Your task to perform on an android device: open app "Google Translate" (install if not already installed) Image 0: 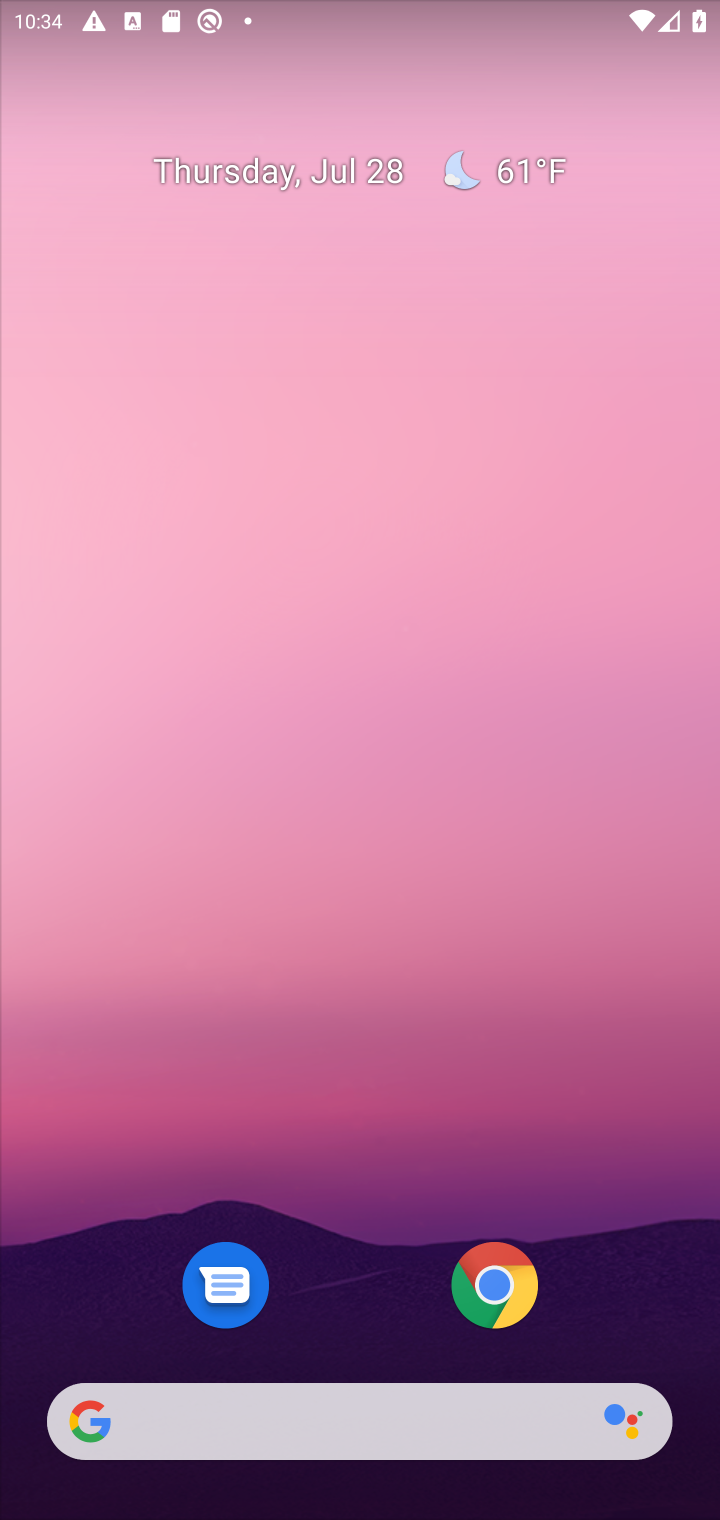
Step 0: drag from (381, 1393) to (558, 180)
Your task to perform on an android device: open app "Google Translate" (install if not already installed) Image 1: 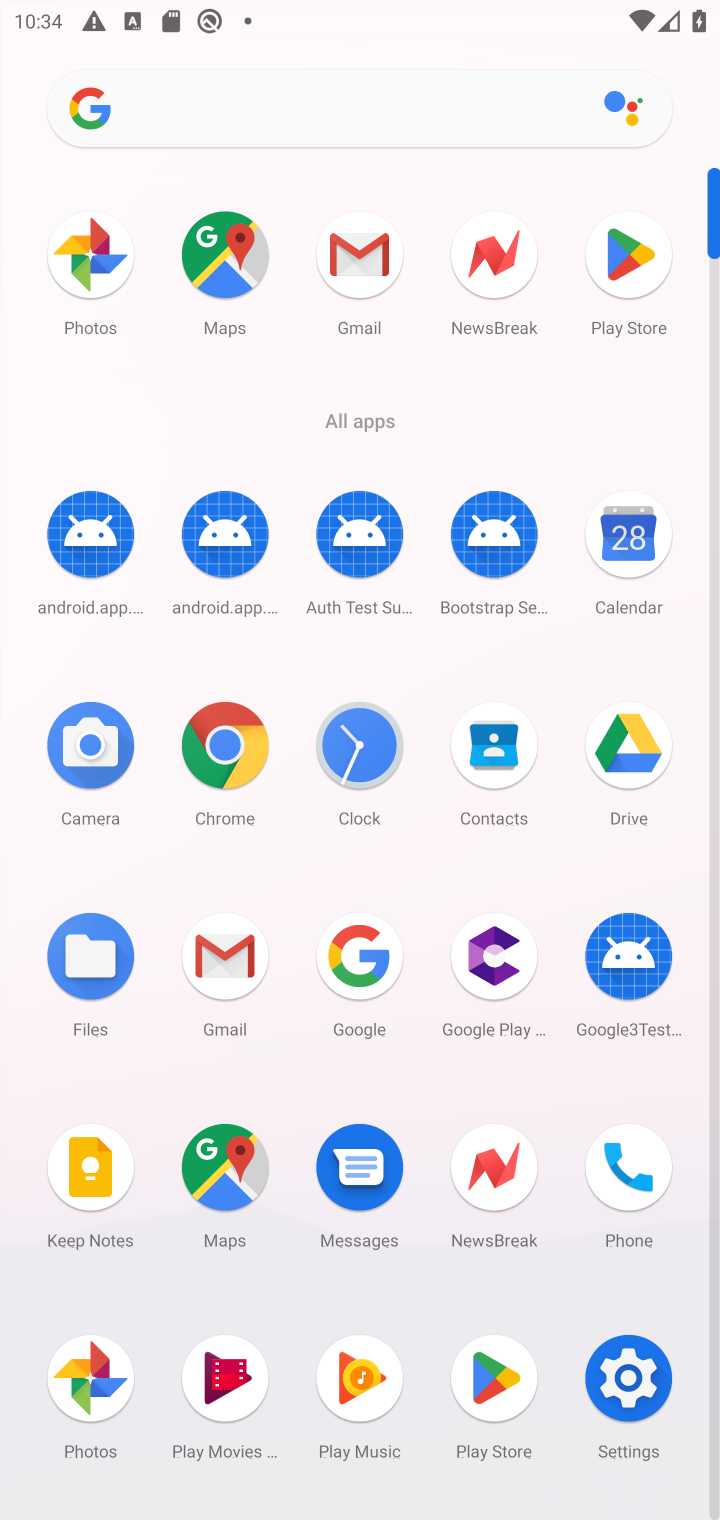
Step 1: click (635, 266)
Your task to perform on an android device: open app "Google Translate" (install if not already installed) Image 2: 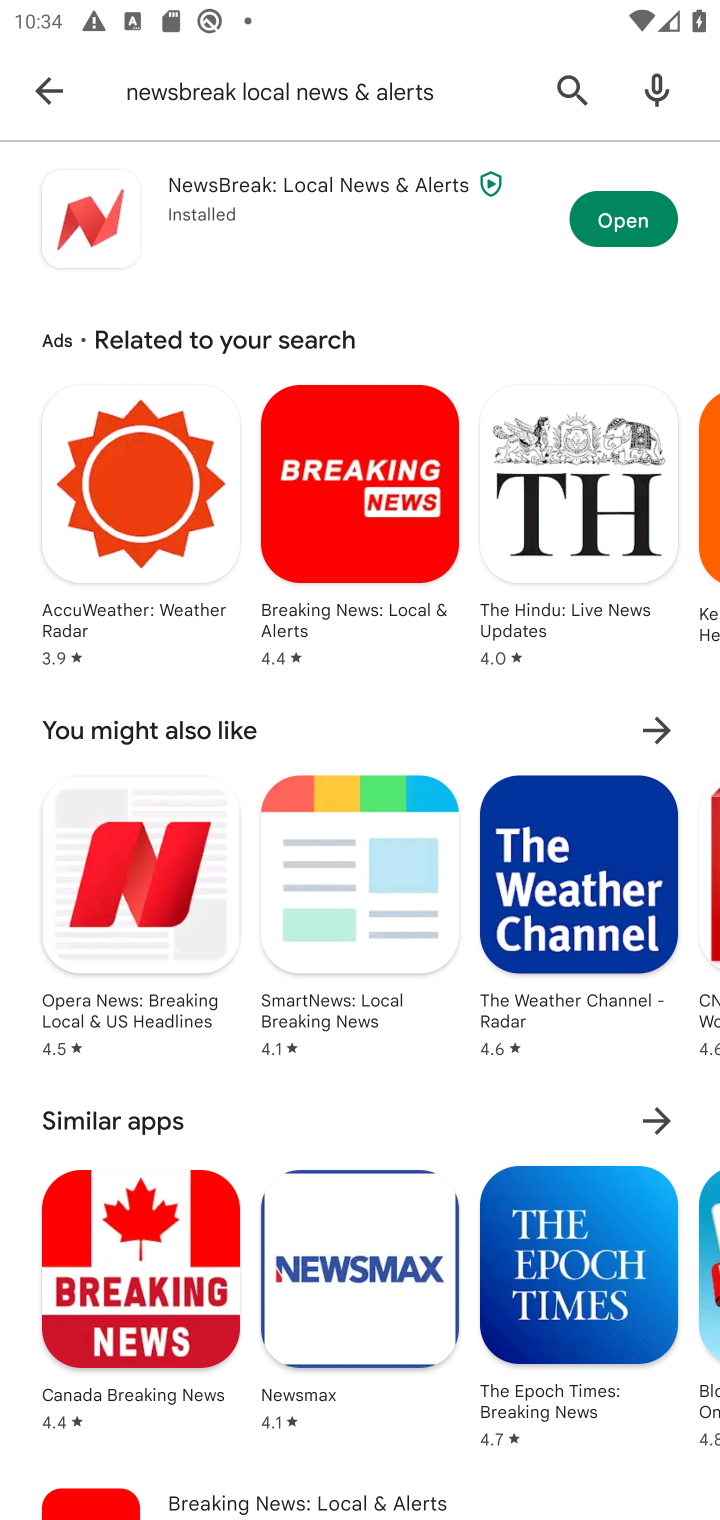
Step 2: click (570, 92)
Your task to perform on an android device: open app "Google Translate" (install if not already installed) Image 3: 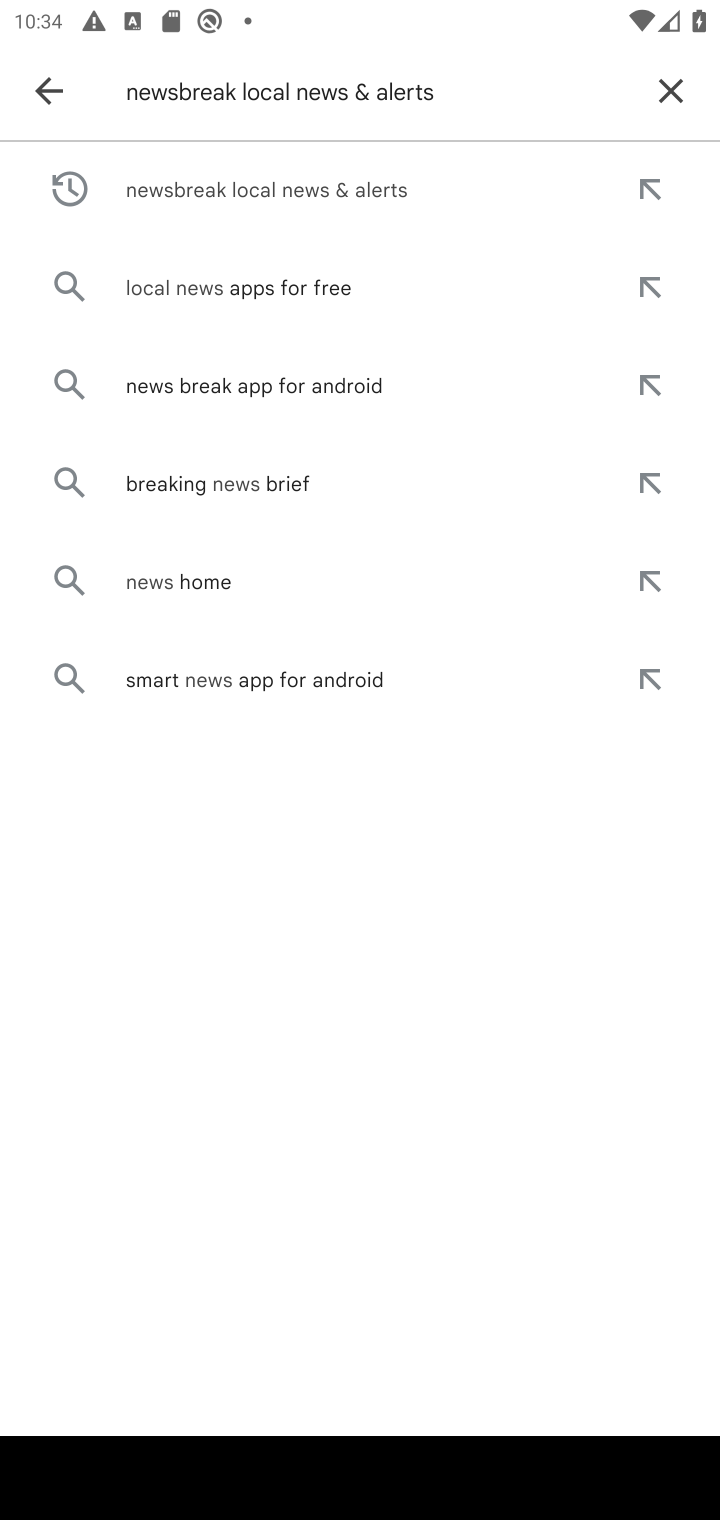
Step 3: click (667, 87)
Your task to perform on an android device: open app "Google Translate" (install if not already installed) Image 4: 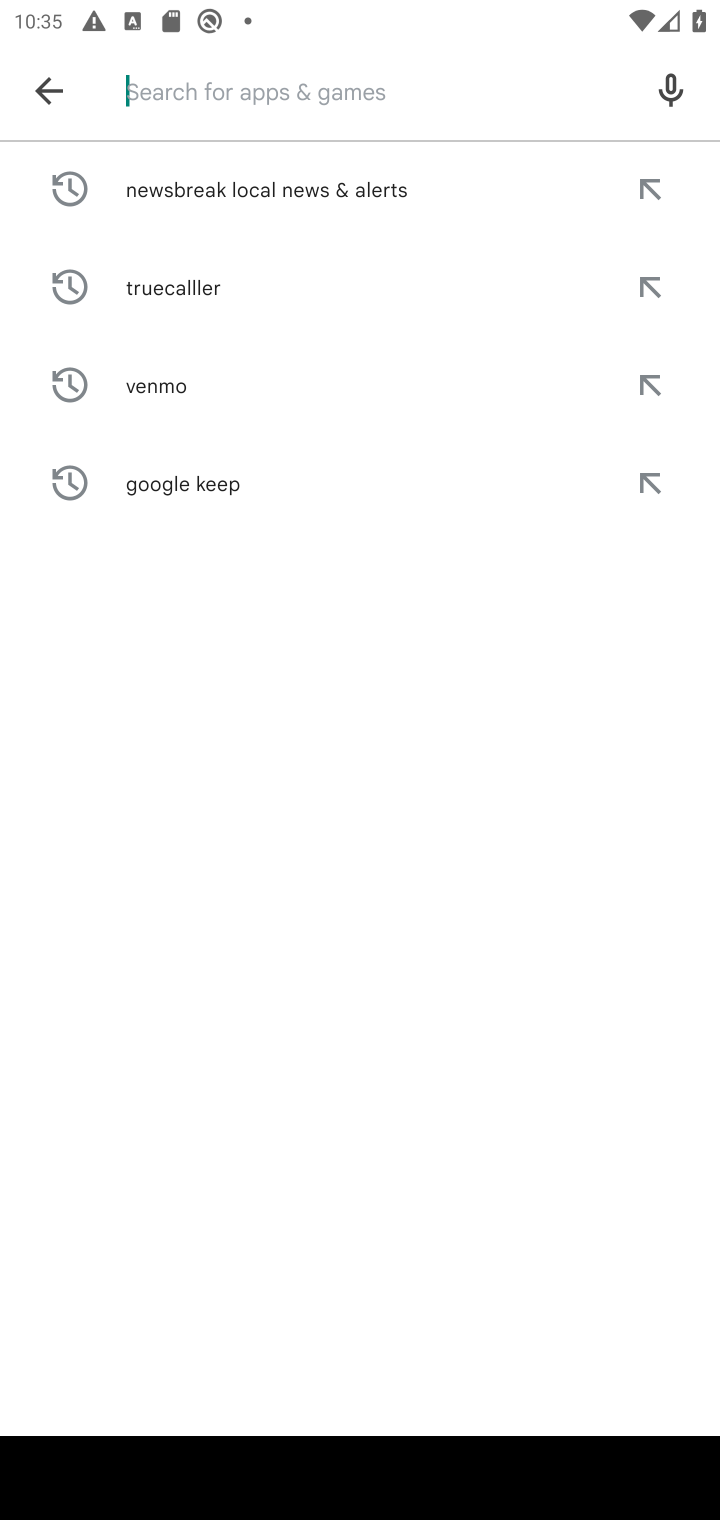
Step 4: click (146, 80)
Your task to perform on an android device: open app "Google Translate" (install if not already installed) Image 5: 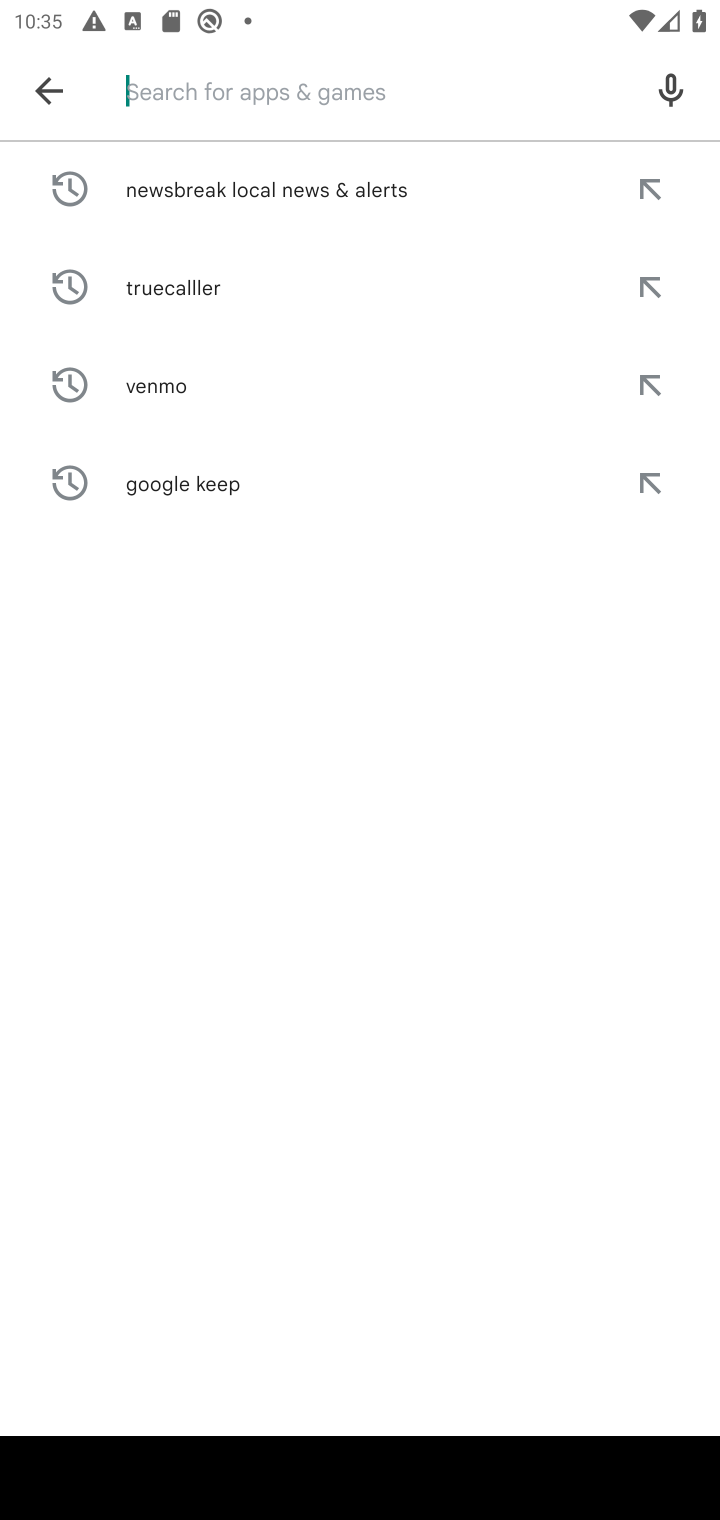
Step 5: type "Google Translate"
Your task to perform on an android device: open app "Google Translate" (install if not already installed) Image 6: 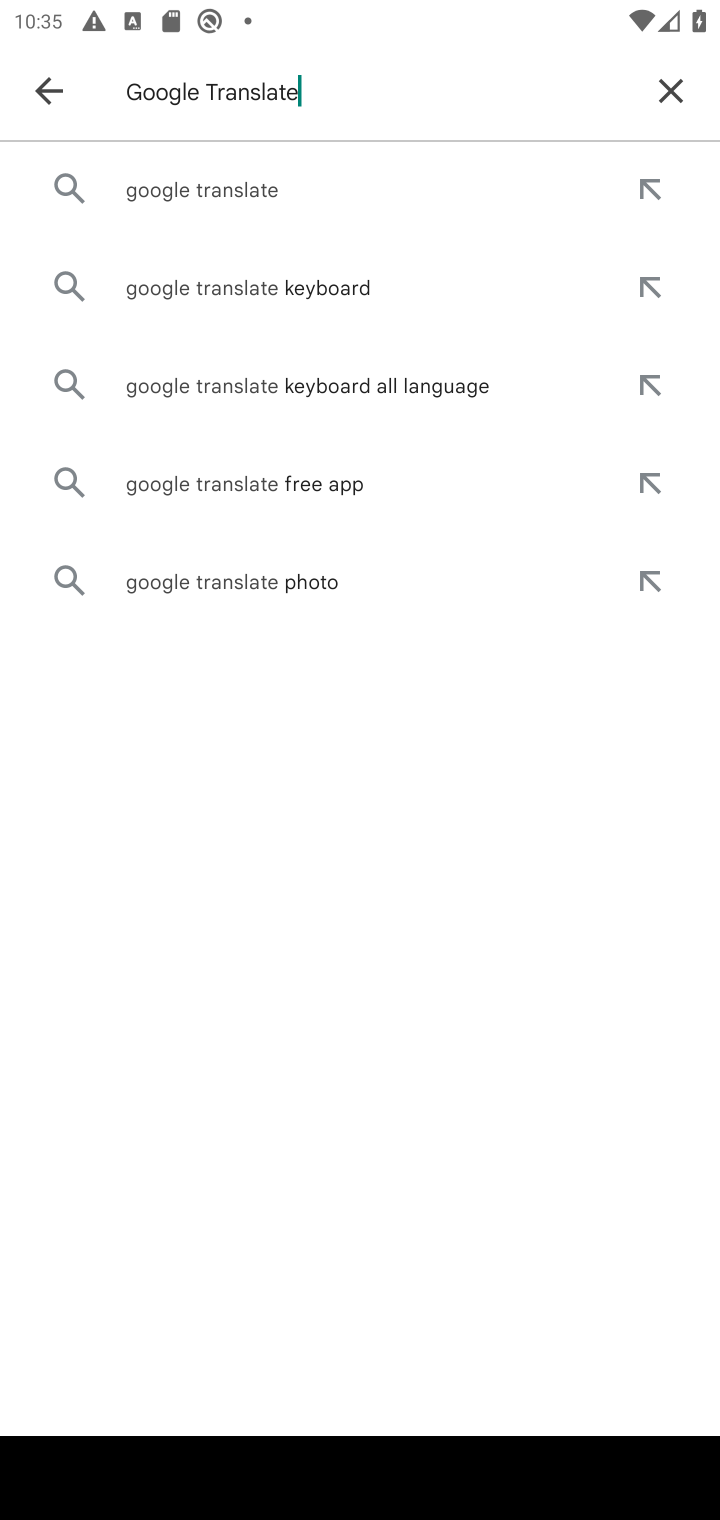
Step 6: click (201, 195)
Your task to perform on an android device: open app "Google Translate" (install if not already installed) Image 7: 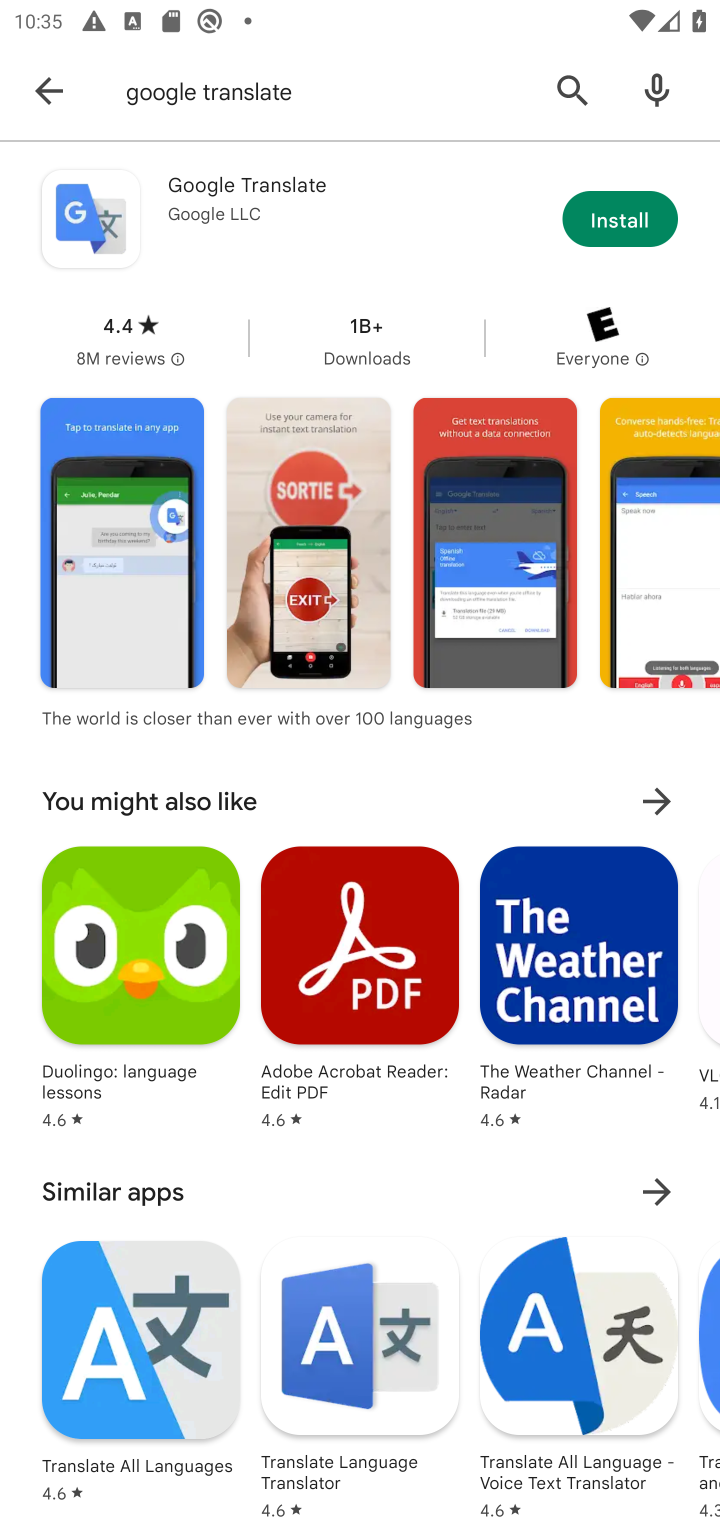
Step 7: click (600, 229)
Your task to perform on an android device: open app "Google Translate" (install if not already installed) Image 8: 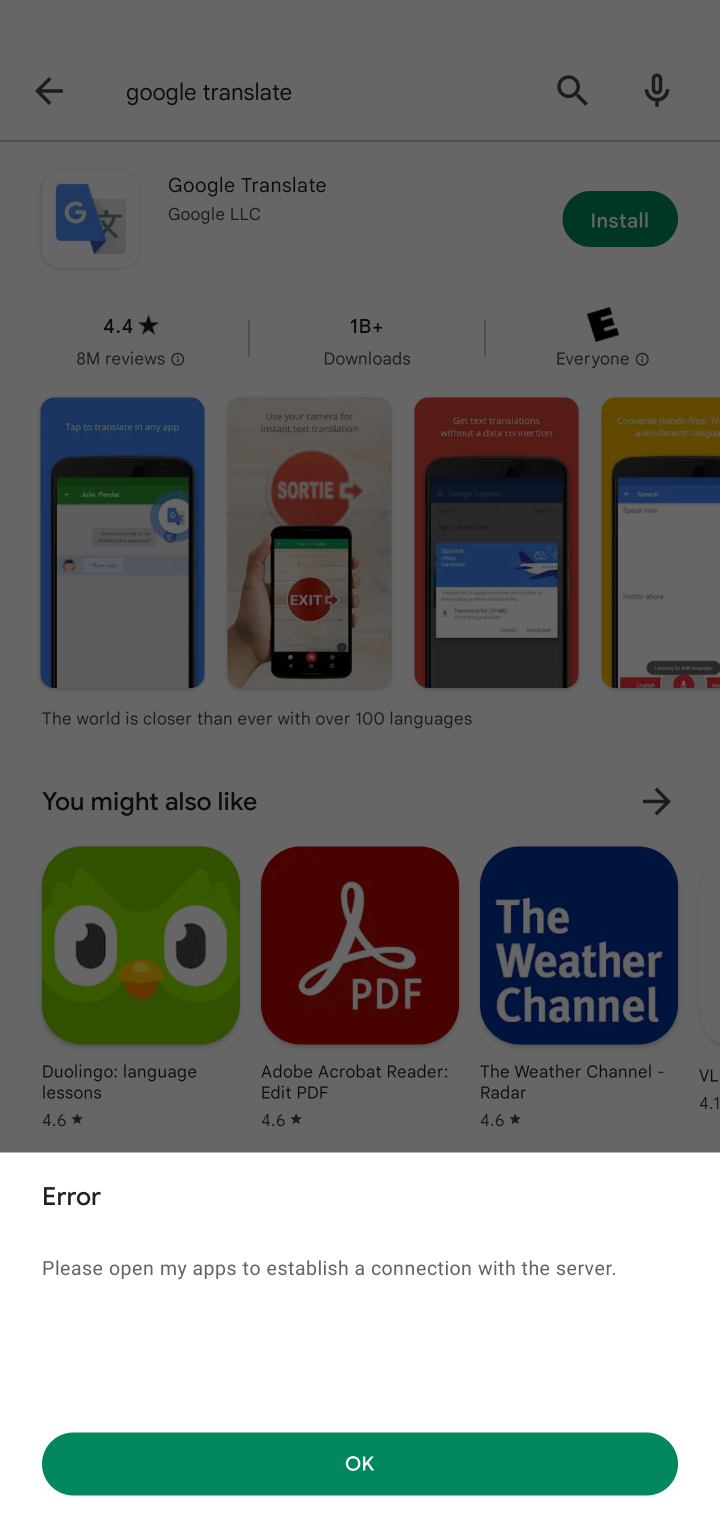
Step 8: click (319, 1455)
Your task to perform on an android device: open app "Google Translate" (install if not already installed) Image 9: 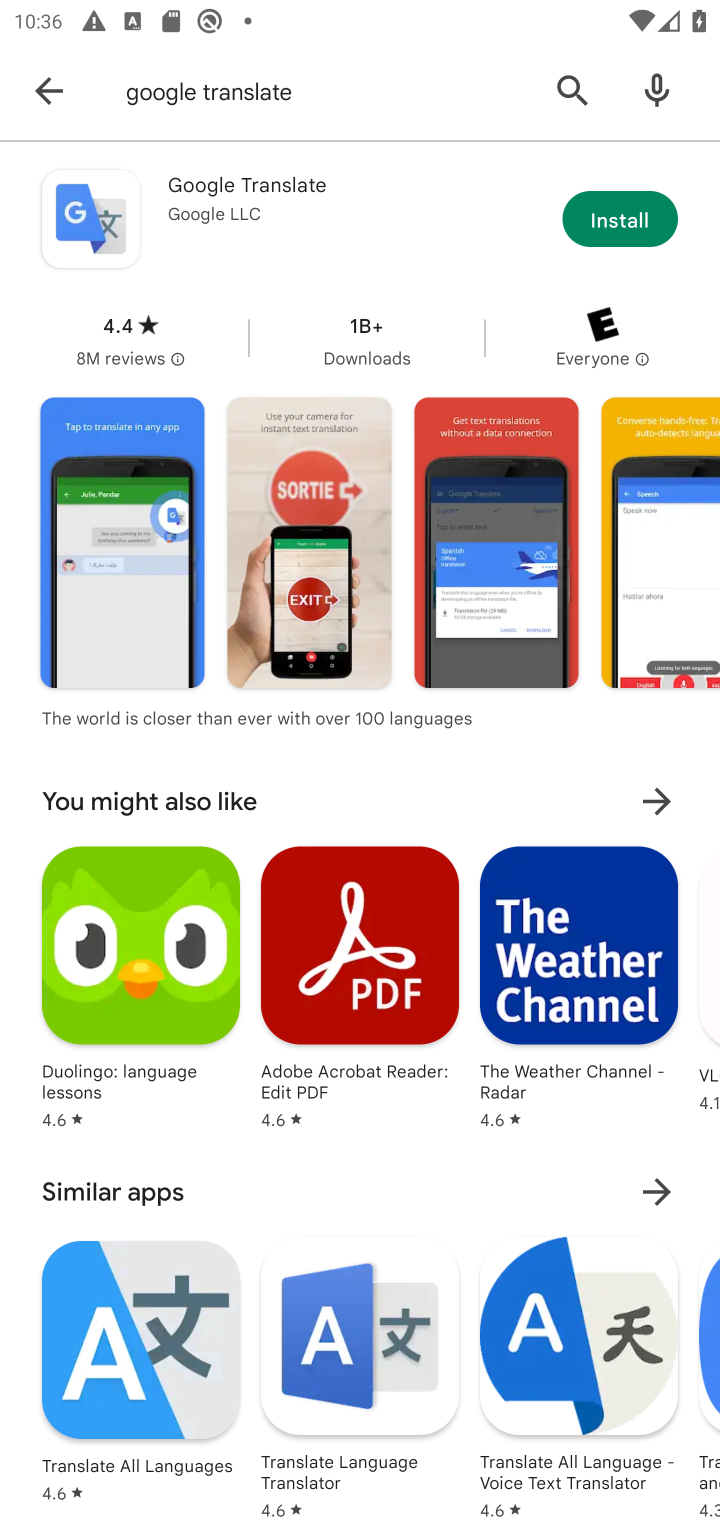
Step 9: click (613, 210)
Your task to perform on an android device: open app "Google Translate" (install if not already installed) Image 10: 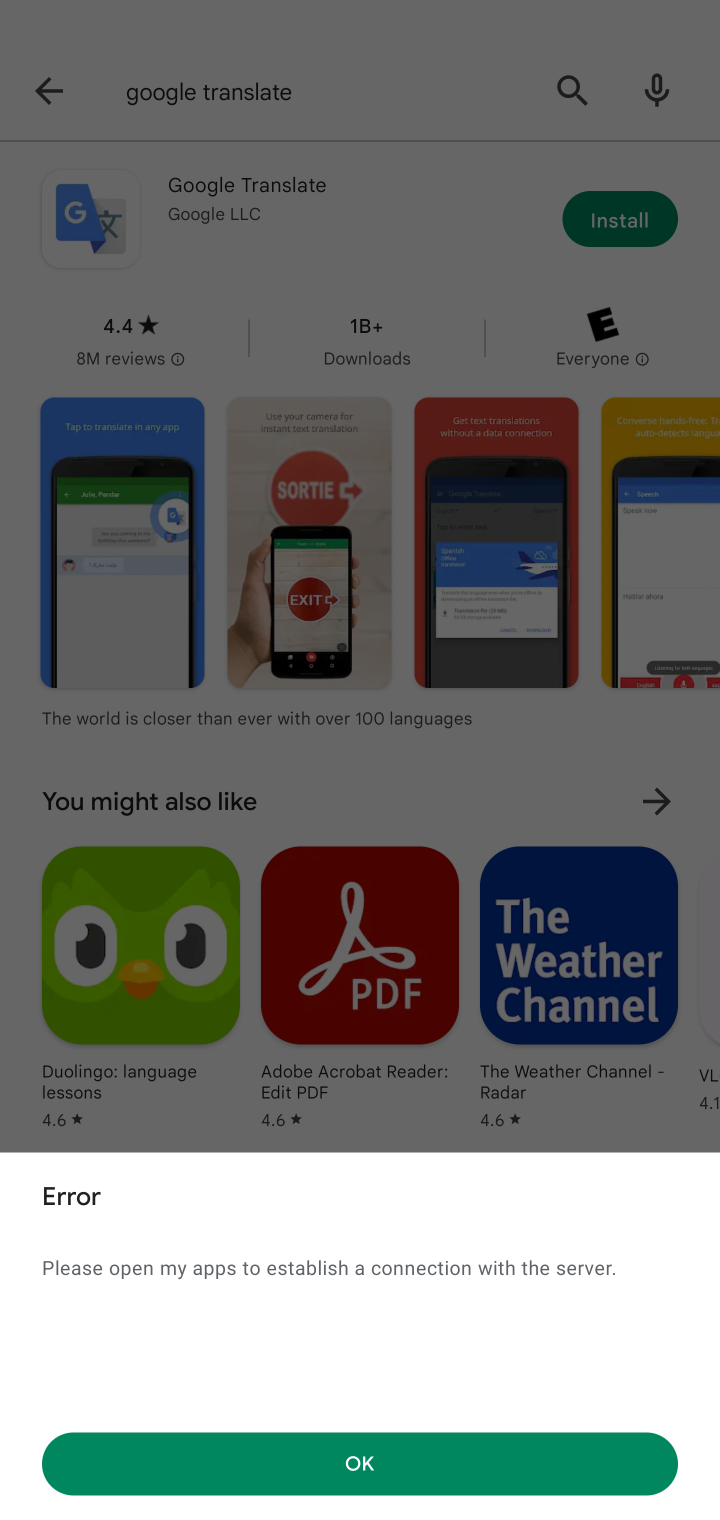
Step 10: click (99, 1204)
Your task to perform on an android device: open app "Google Translate" (install if not already installed) Image 11: 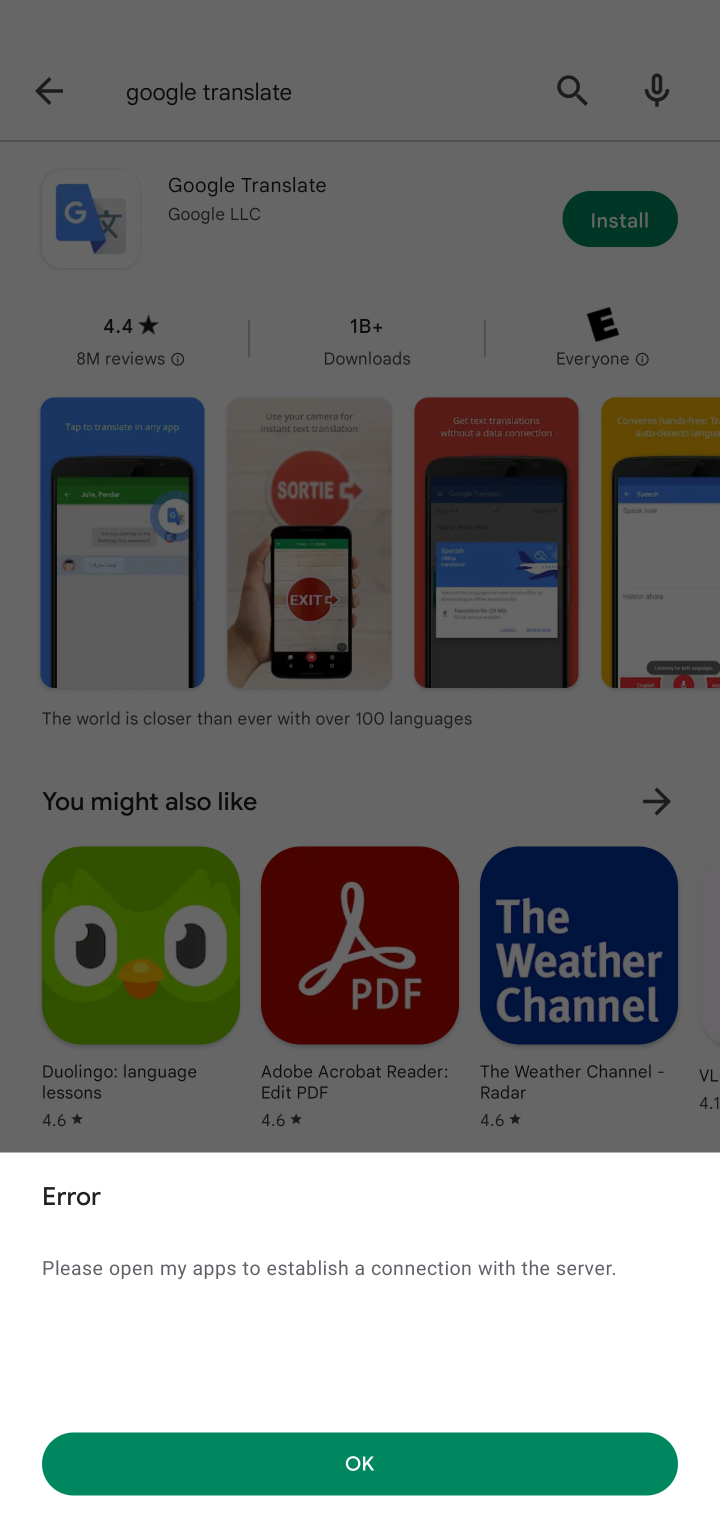
Step 11: click (377, 1476)
Your task to perform on an android device: open app "Google Translate" (install if not already installed) Image 12: 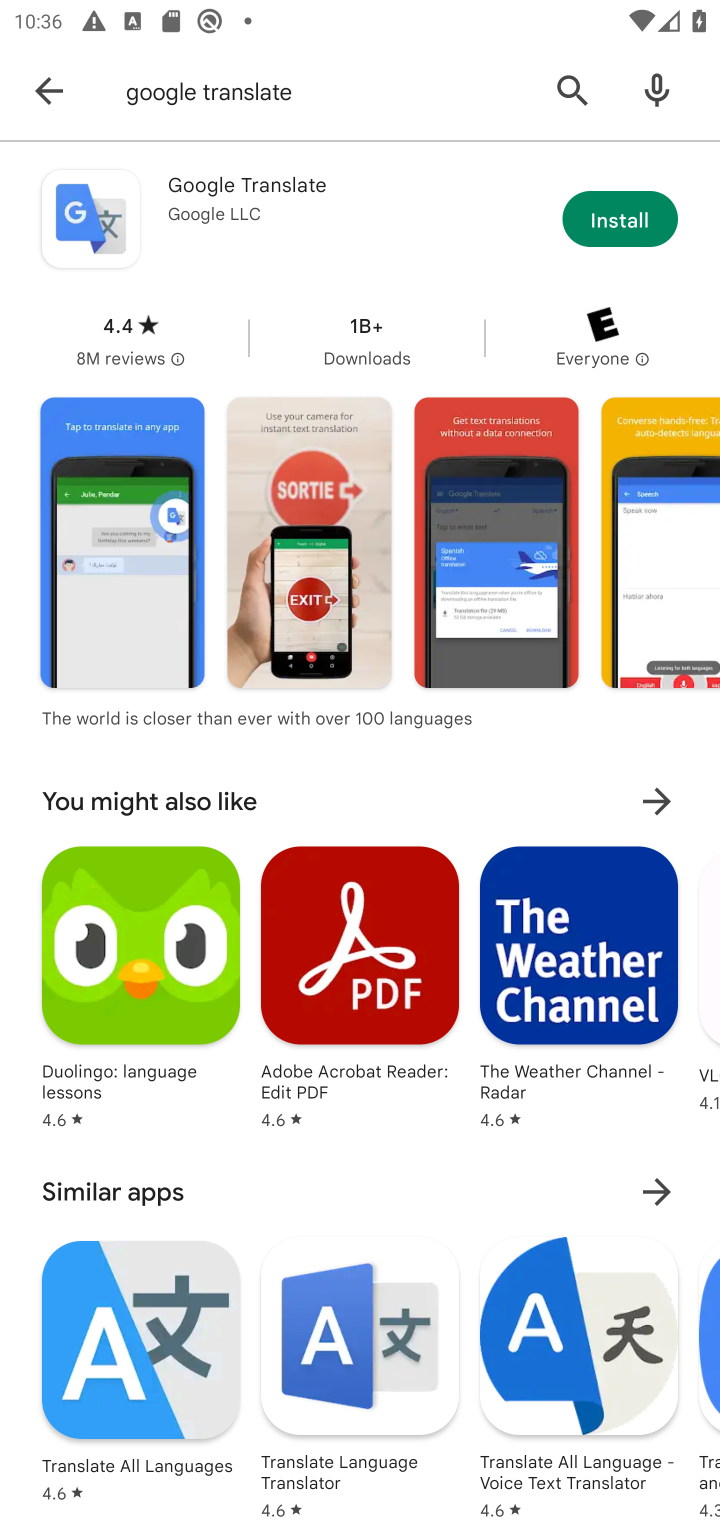
Step 12: click (597, 218)
Your task to perform on an android device: open app "Google Translate" (install if not already installed) Image 13: 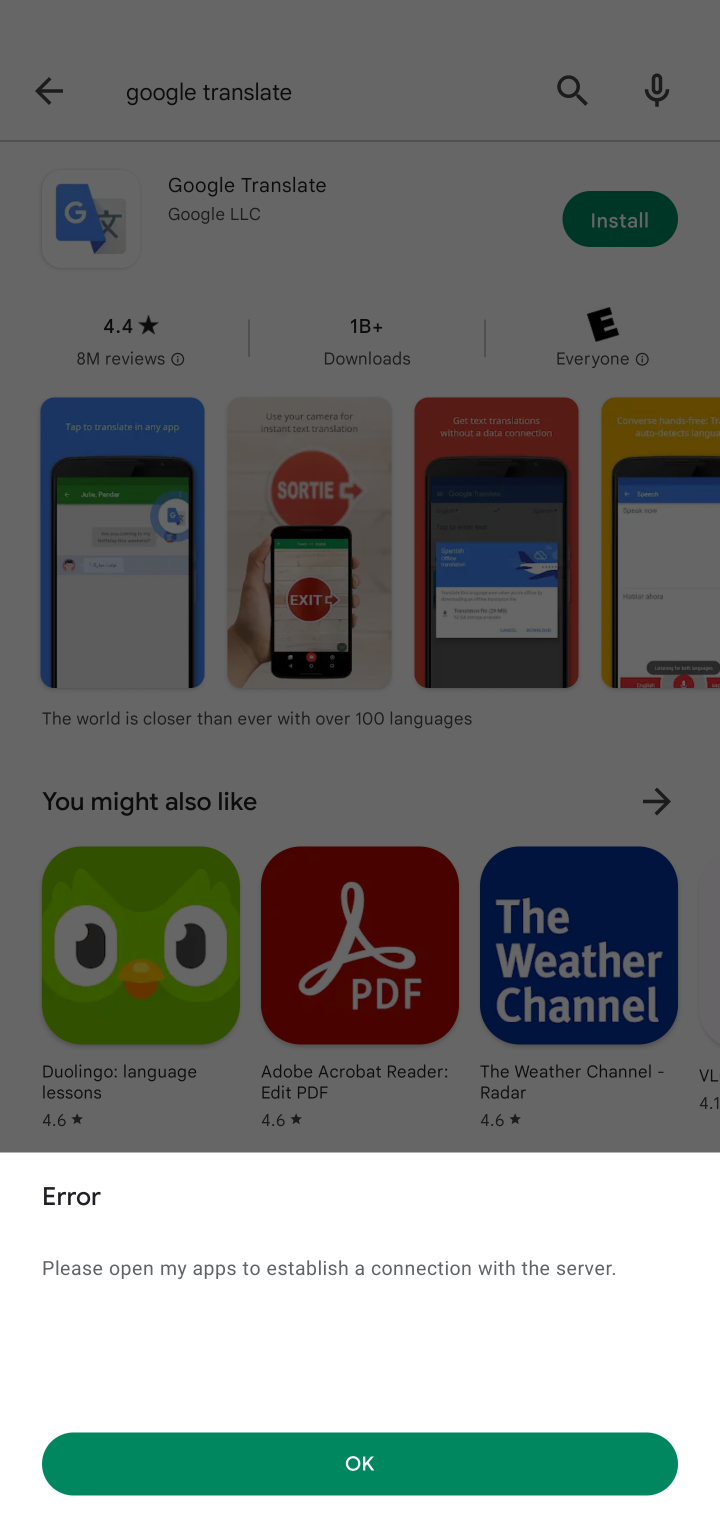
Step 13: click (389, 1449)
Your task to perform on an android device: open app "Google Translate" (install if not already installed) Image 14: 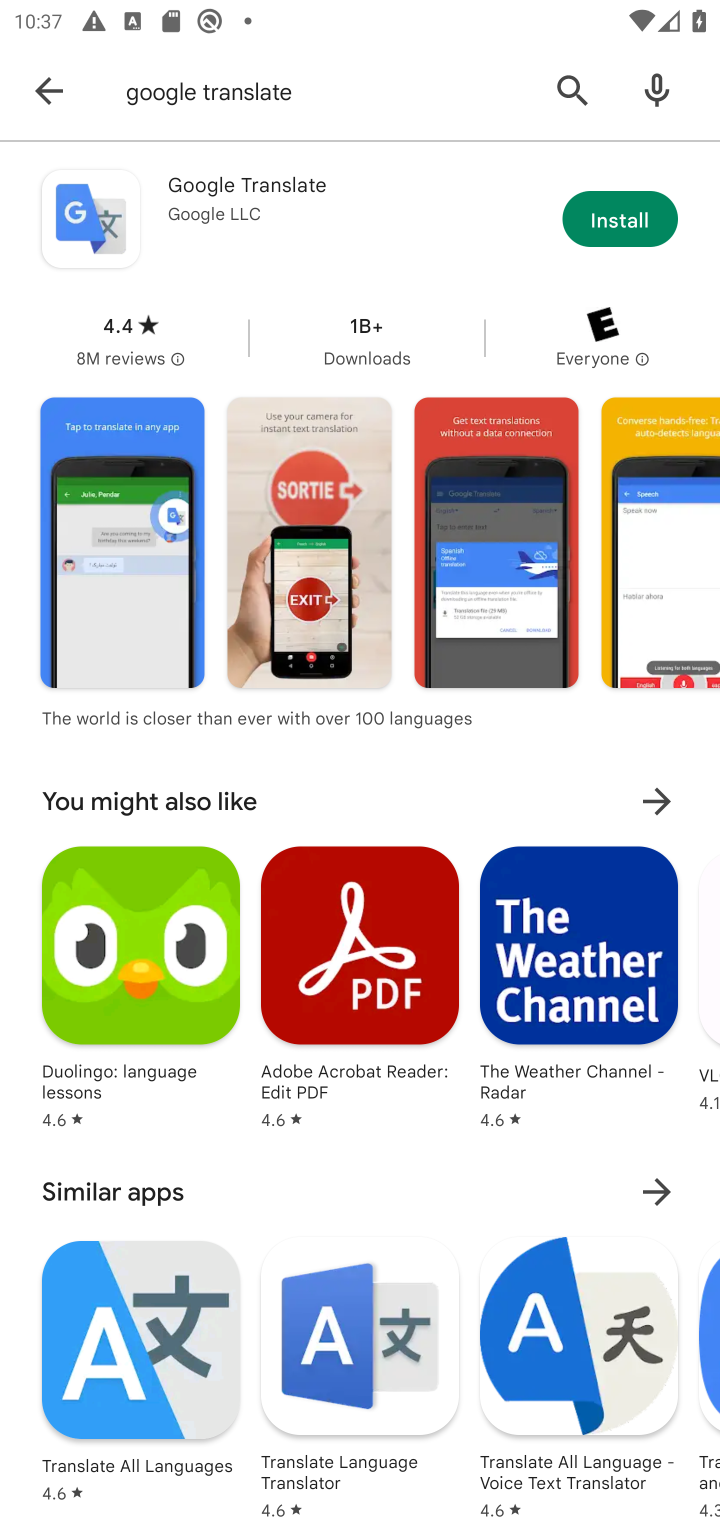
Step 14: task complete